Your task to perform on an android device: Open Amazon Image 0: 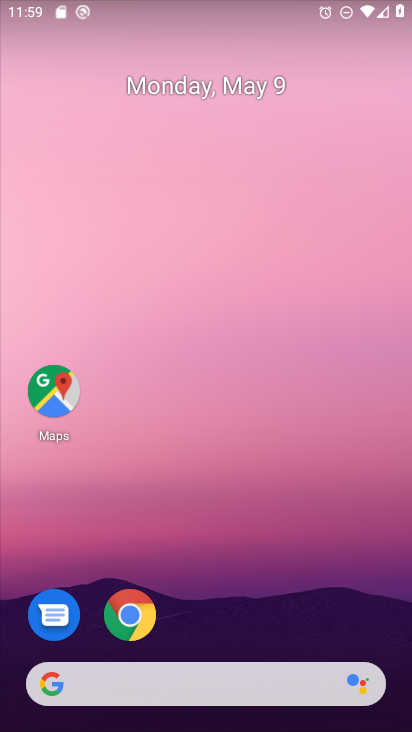
Step 0: drag from (266, 715) to (346, 91)
Your task to perform on an android device: Open Amazon Image 1: 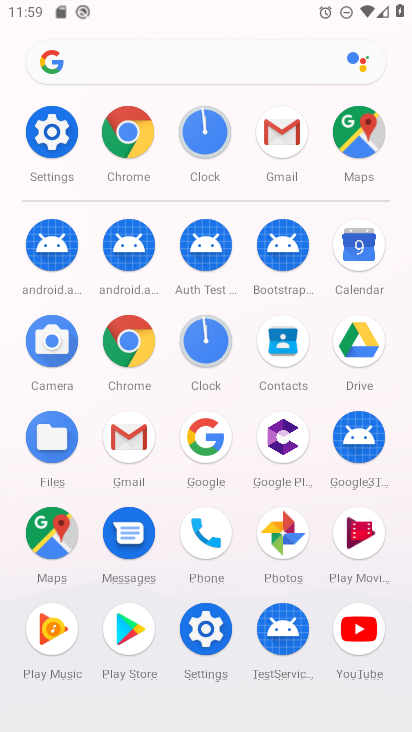
Step 1: click (138, 142)
Your task to perform on an android device: Open Amazon Image 2: 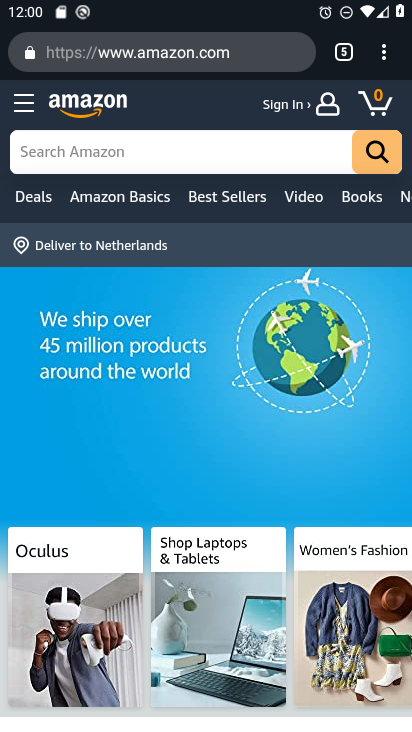
Step 2: task complete